Your task to perform on an android device: Open Google Maps Image 0: 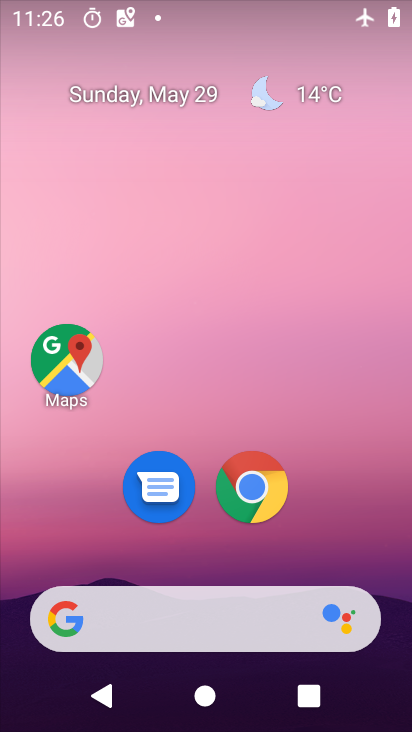
Step 0: click (58, 363)
Your task to perform on an android device: Open Google Maps Image 1: 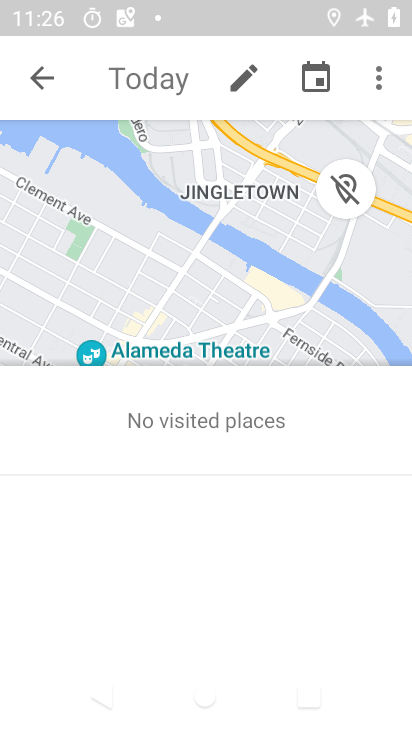
Step 1: task complete